Your task to perform on an android device: check the backup settings in the google photos Image 0: 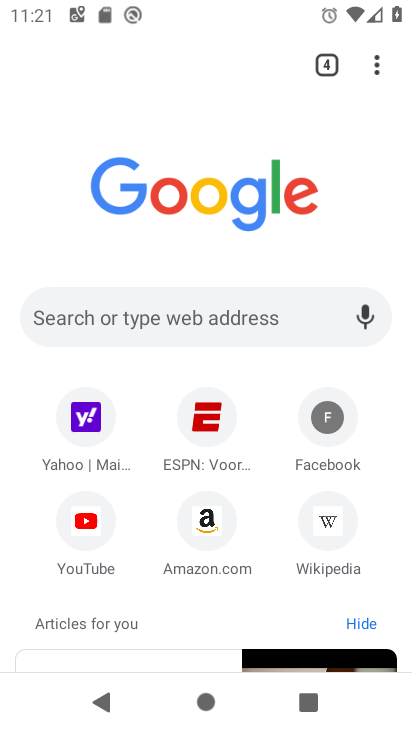
Step 0: press home button
Your task to perform on an android device: check the backup settings in the google photos Image 1: 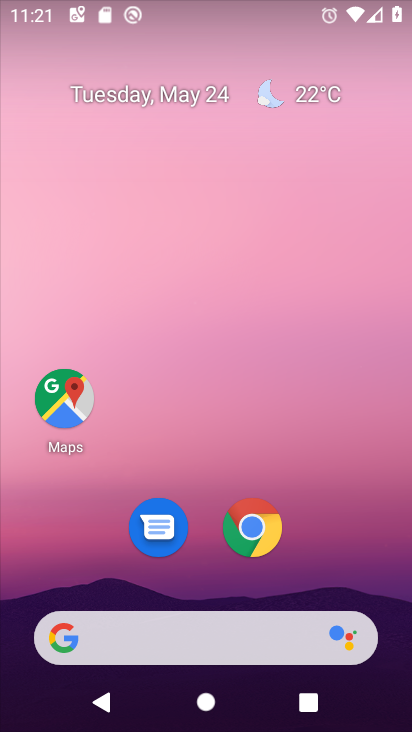
Step 1: drag from (172, 634) to (334, 92)
Your task to perform on an android device: check the backup settings in the google photos Image 2: 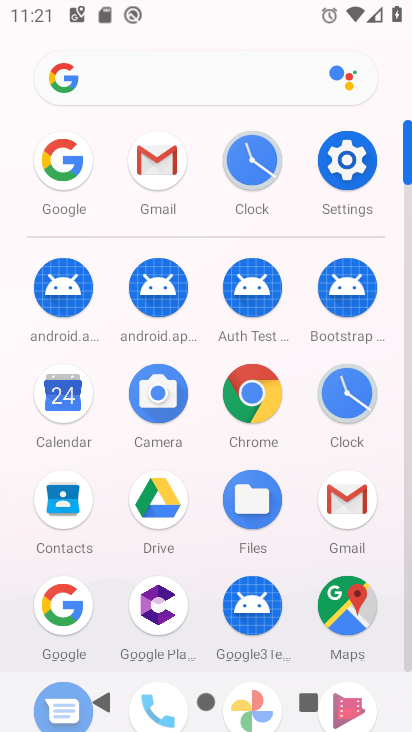
Step 2: drag from (239, 444) to (327, 89)
Your task to perform on an android device: check the backup settings in the google photos Image 3: 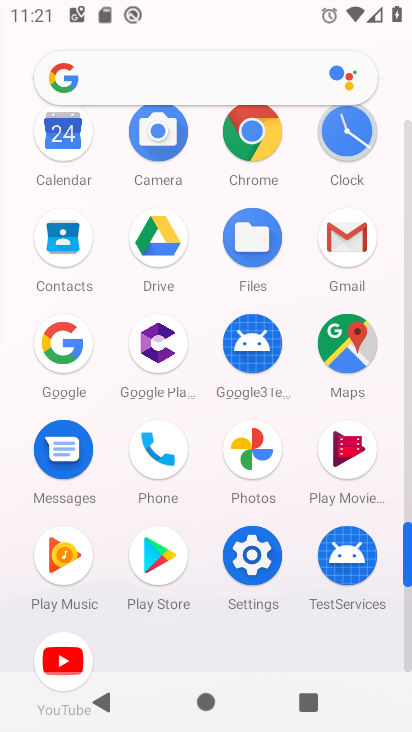
Step 3: click (262, 458)
Your task to perform on an android device: check the backup settings in the google photos Image 4: 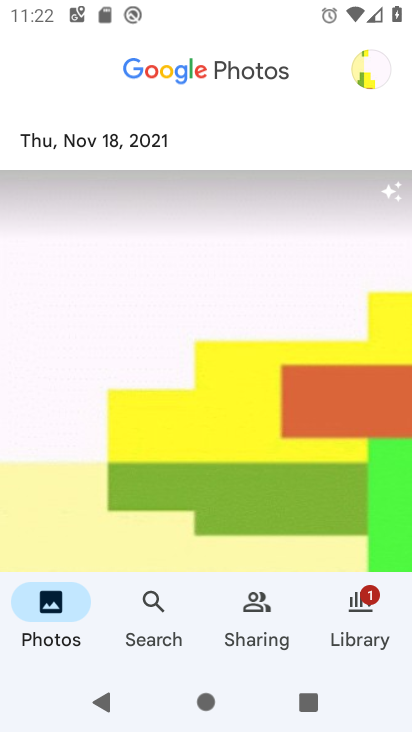
Step 4: click (362, 62)
Your task to perform on an android device: check the backup settings in the google photos Image 5: 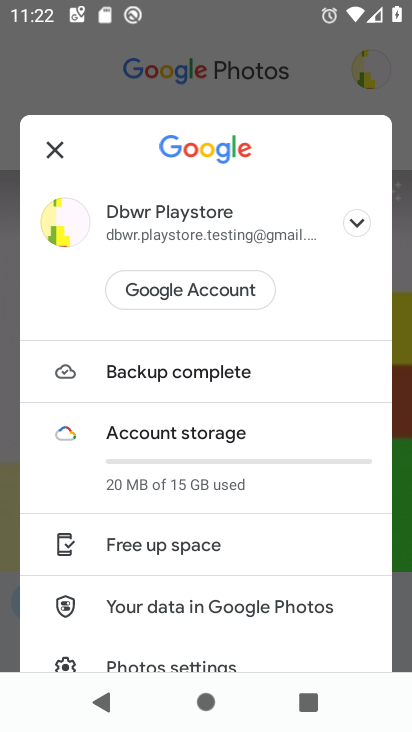
Step 5: drag from (207, 572) to (347, 136)
Your task to perform on an android device: check the backup settings in the google photos Image 6: 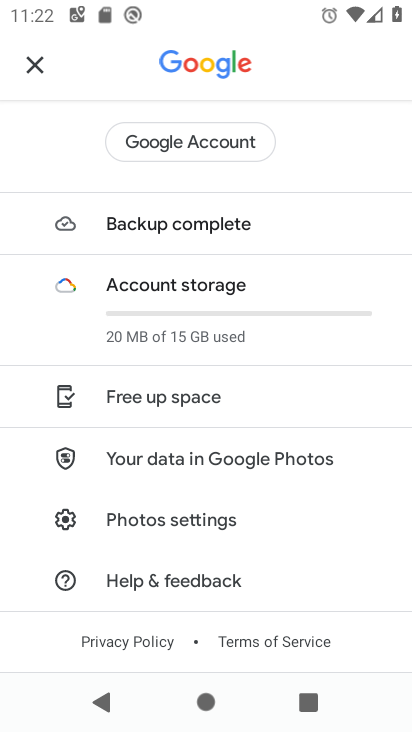
Step 6: click (190, 522)
Your task to perform on an android device: check the backup settings in the google photos Image 7: 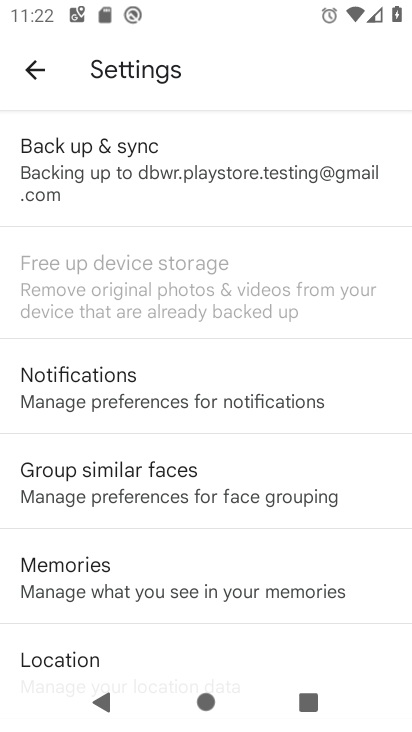
Step 7: click (209, 180)
Your task to perform on an android device: check the backup settings in the google photos Image 8: 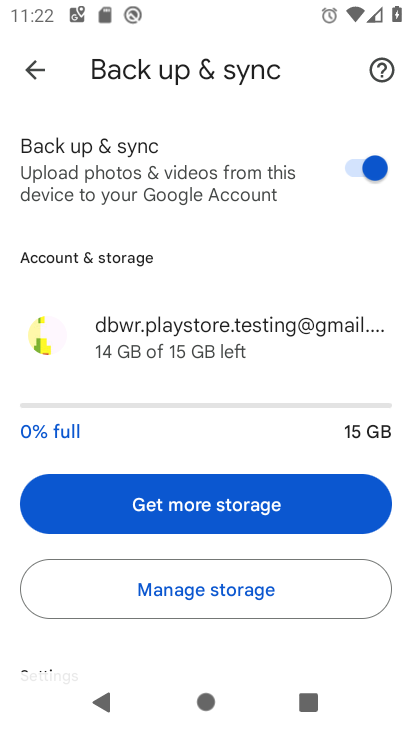
Step 8: task complete